Your task to perform on an android device: find photos in the google photos app Image 0: 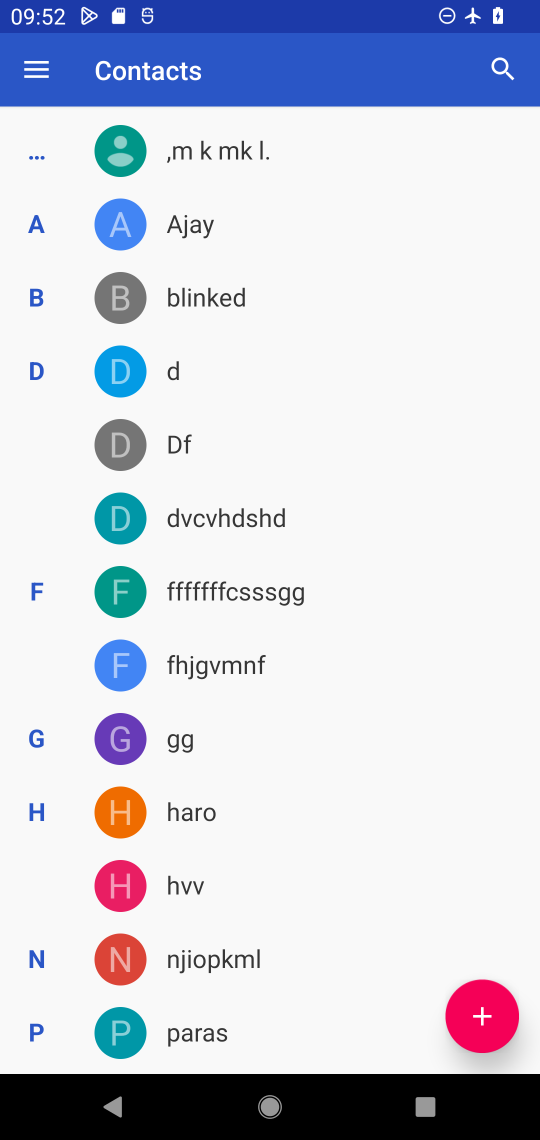
Step 0: press home button
Your task to perform on an android device: find photos in the google photos app Image 1: 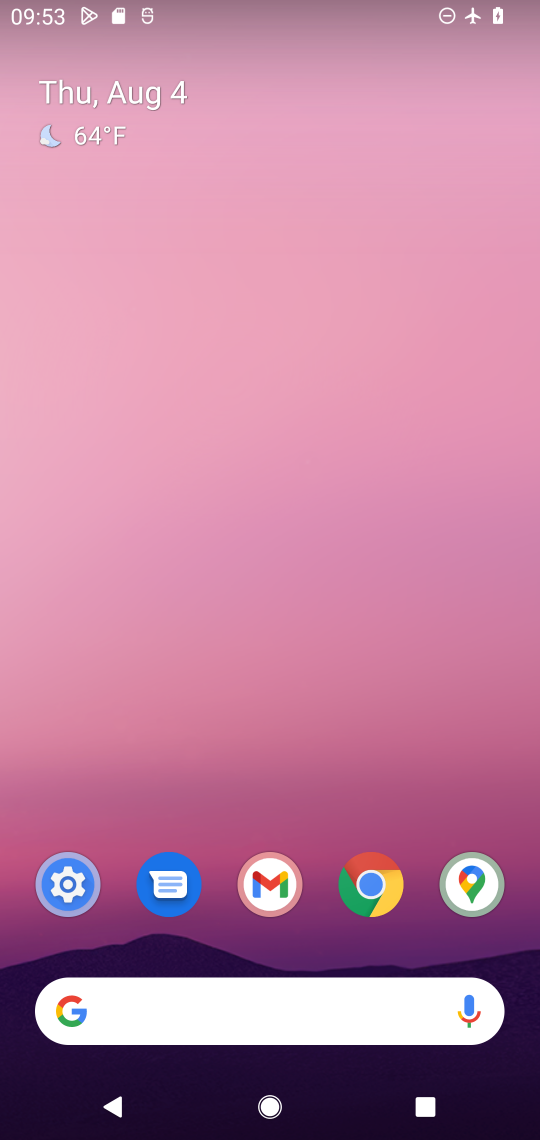
Step 1: drag from (226, 1101) to (375, 383)
Your task to perform on an android device: find photos in the google photos app Image 2: 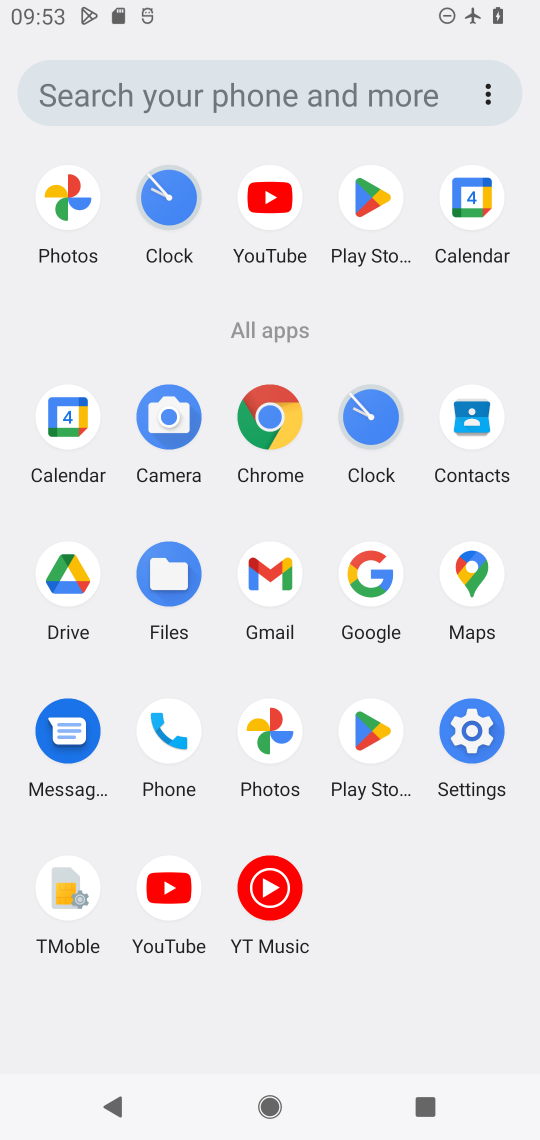
Step 2: click (251, 739)
Your task to perform on an android device: find photos in the google photos app Image 3: 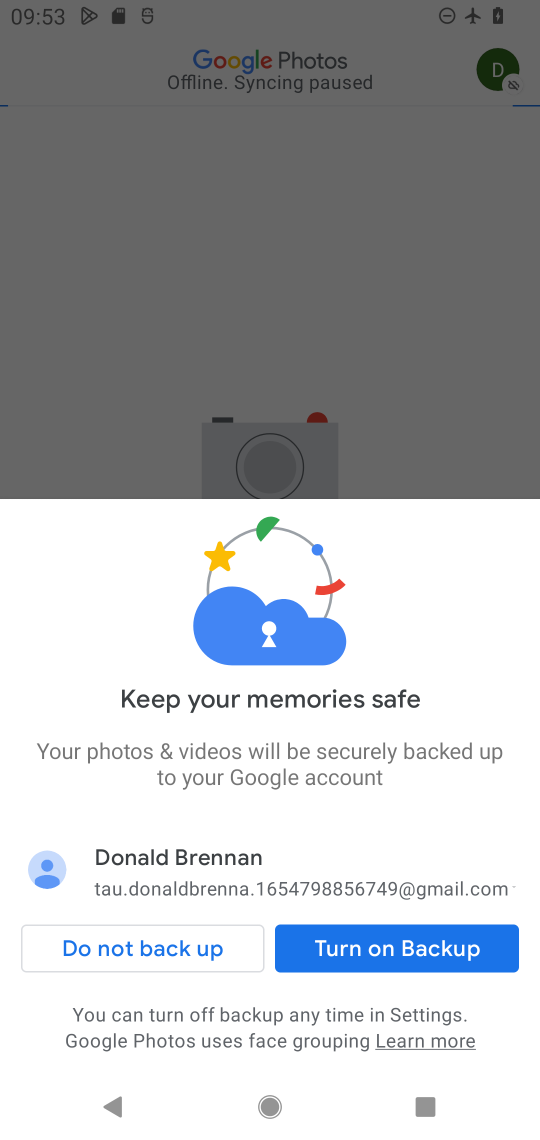
Step 3: click (98, 941)
Your task to perform on an android device: find photos in the google photos app Image 4: 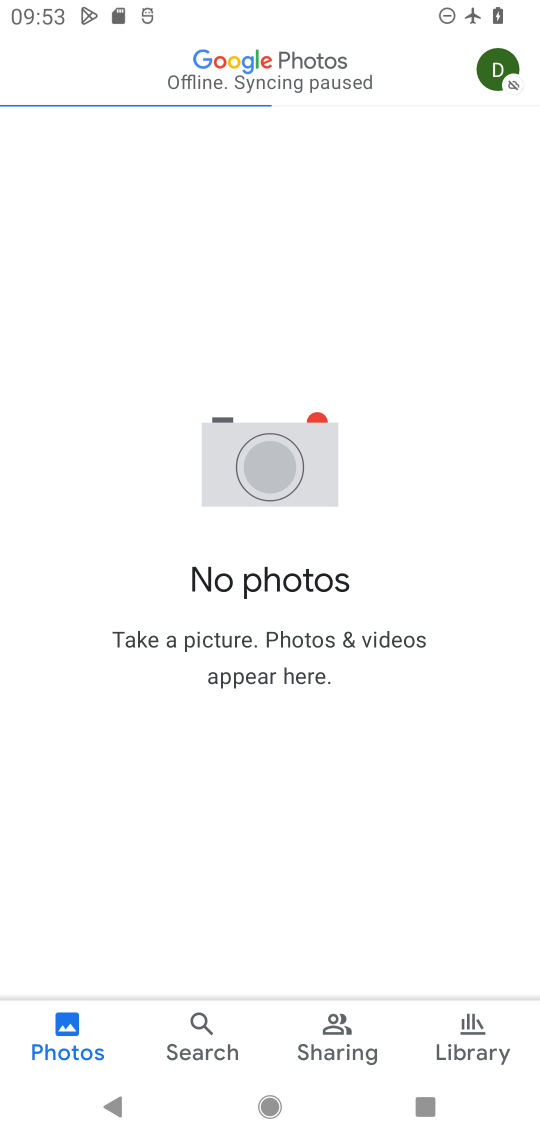
Step 4: click (178, 1029)
Your task to perform on an android device: find photos in the google photos app Image 5: 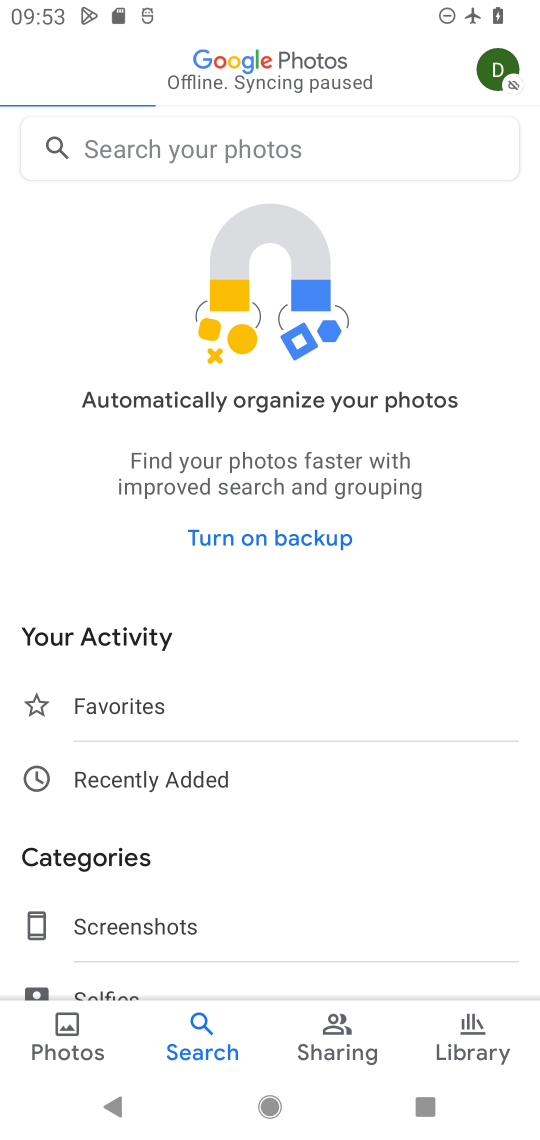
Step 5: task complete